Your task to perform on an android device: toggle notification dots Image 0: 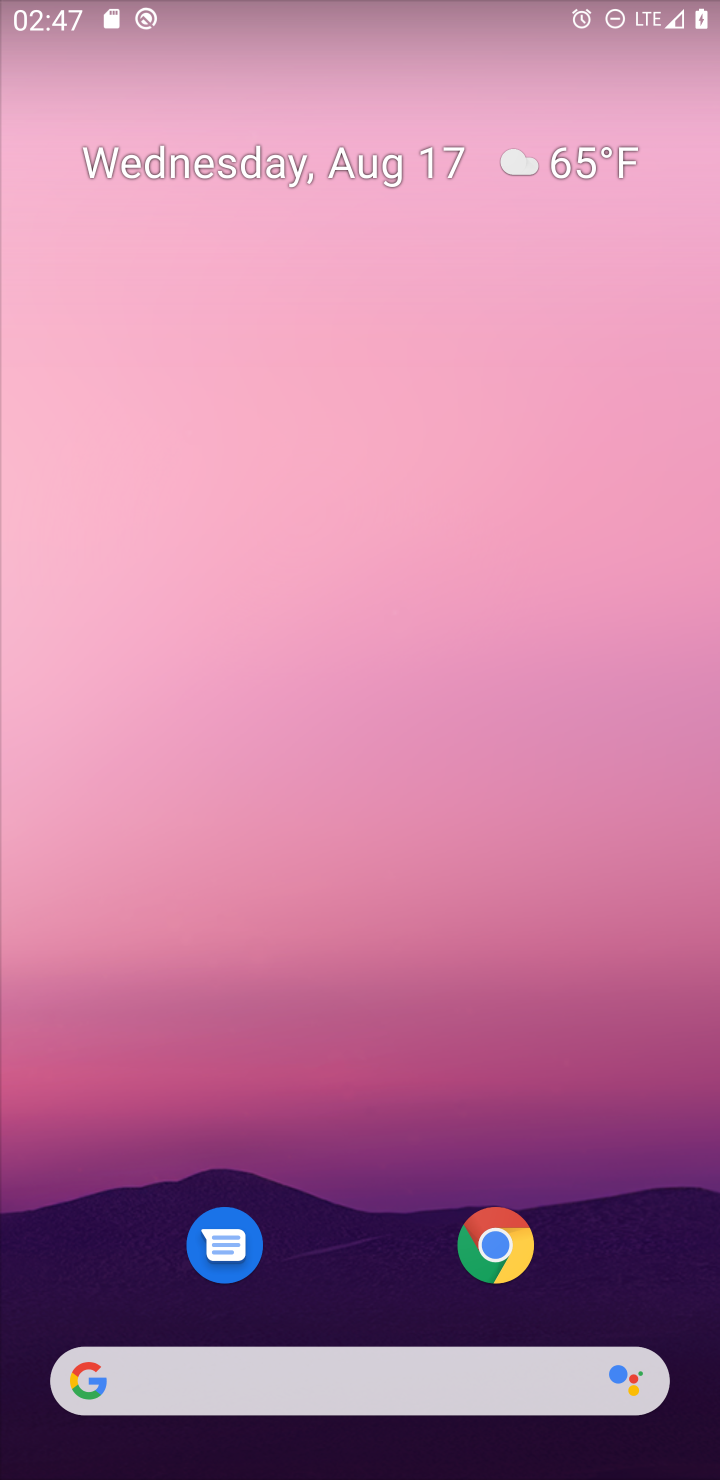
Step 0: drag from (301, 732) to (242, 106)
Your task to perform on an android device: toggle notification dots Image 1: 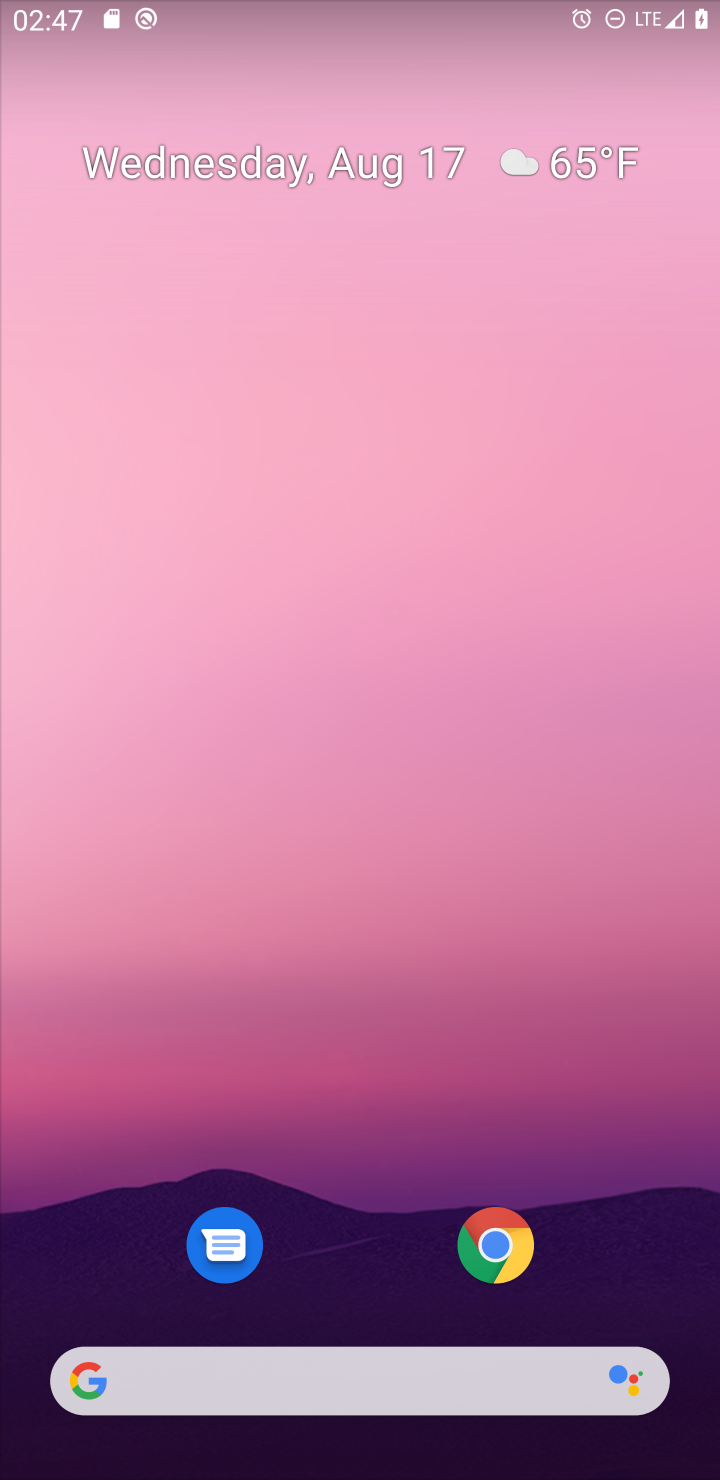
Step 1: drag from (407, 661) to (402, 81)
Your task to perform on an android device: toggle notification dots Image 2: 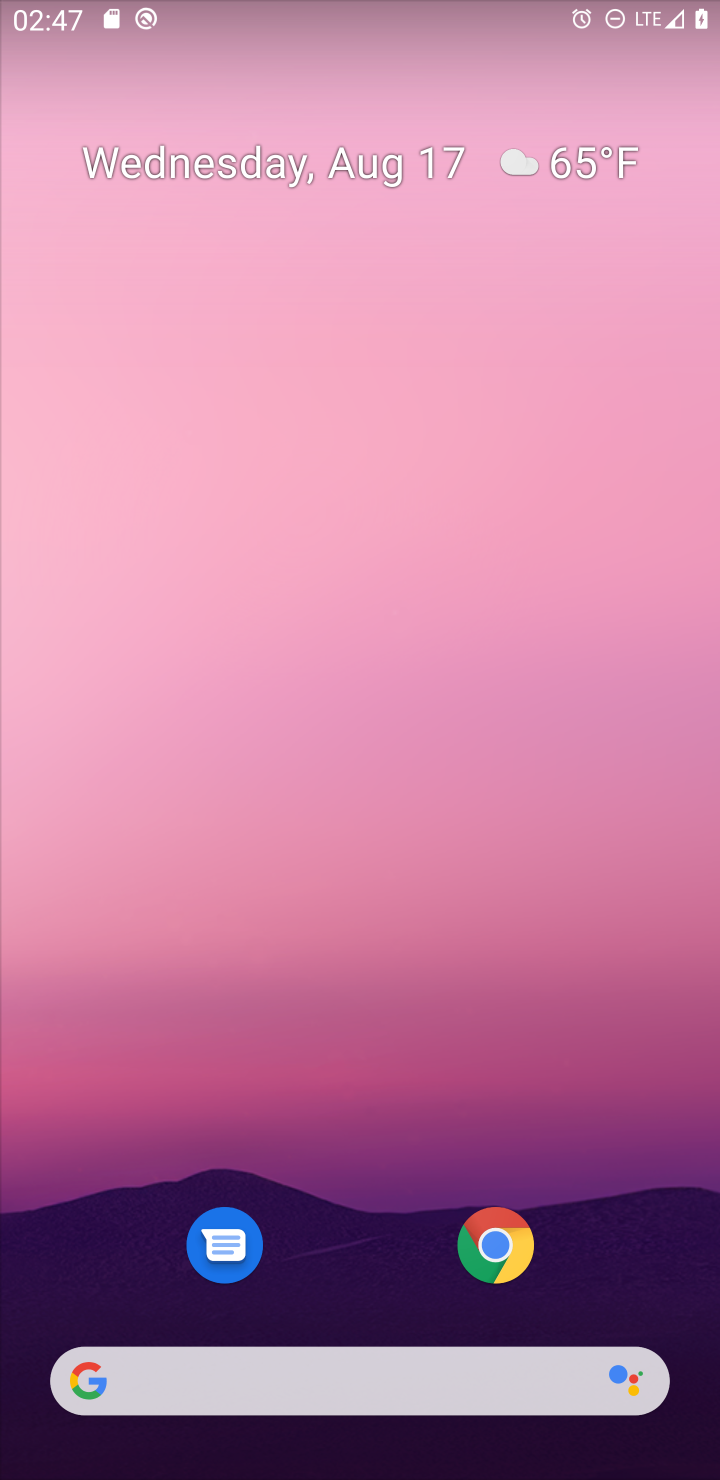
Step 2: drag from (376, 1268) to (364, 84)
Your task to perform on an android device: toggle notification dots Image 3: 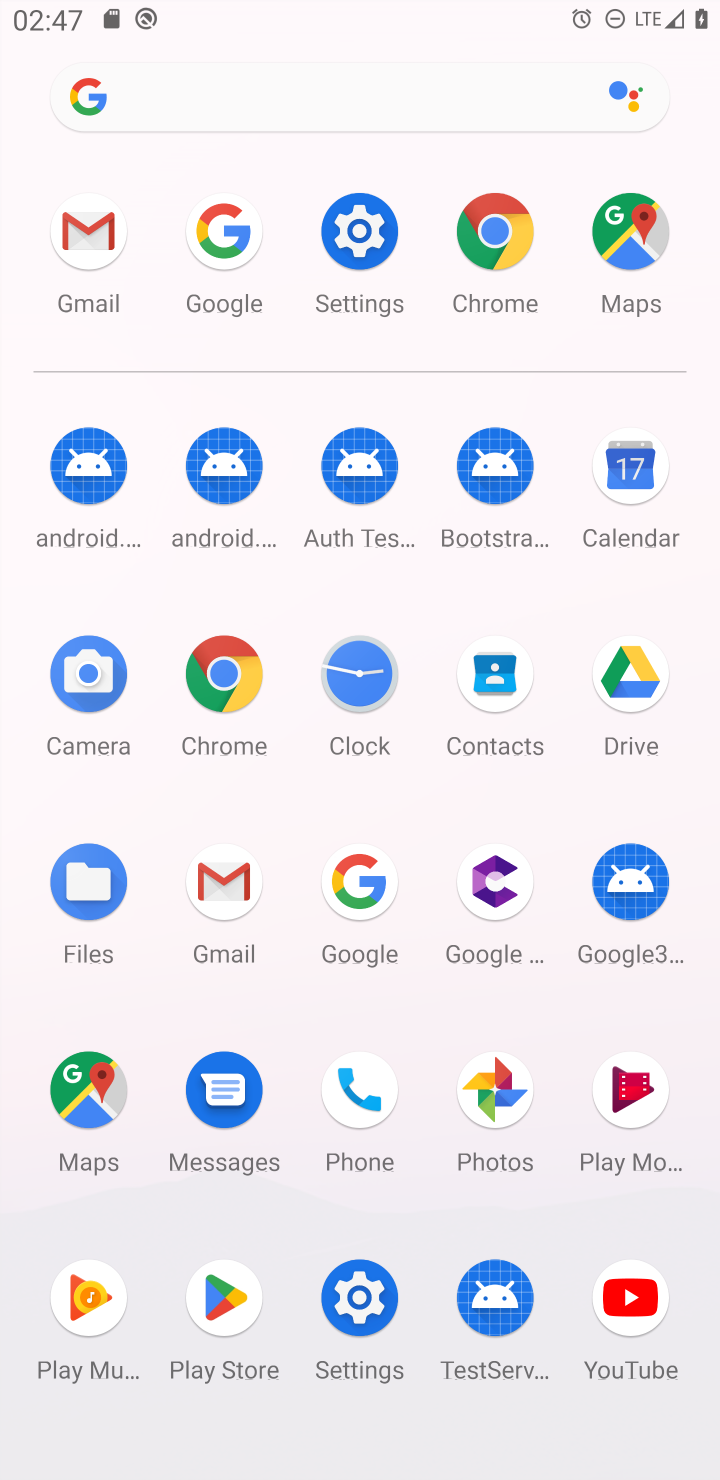
Step 3: click (371, 1290)
Your task to perform on an android device: toggle notification dots Image 4: 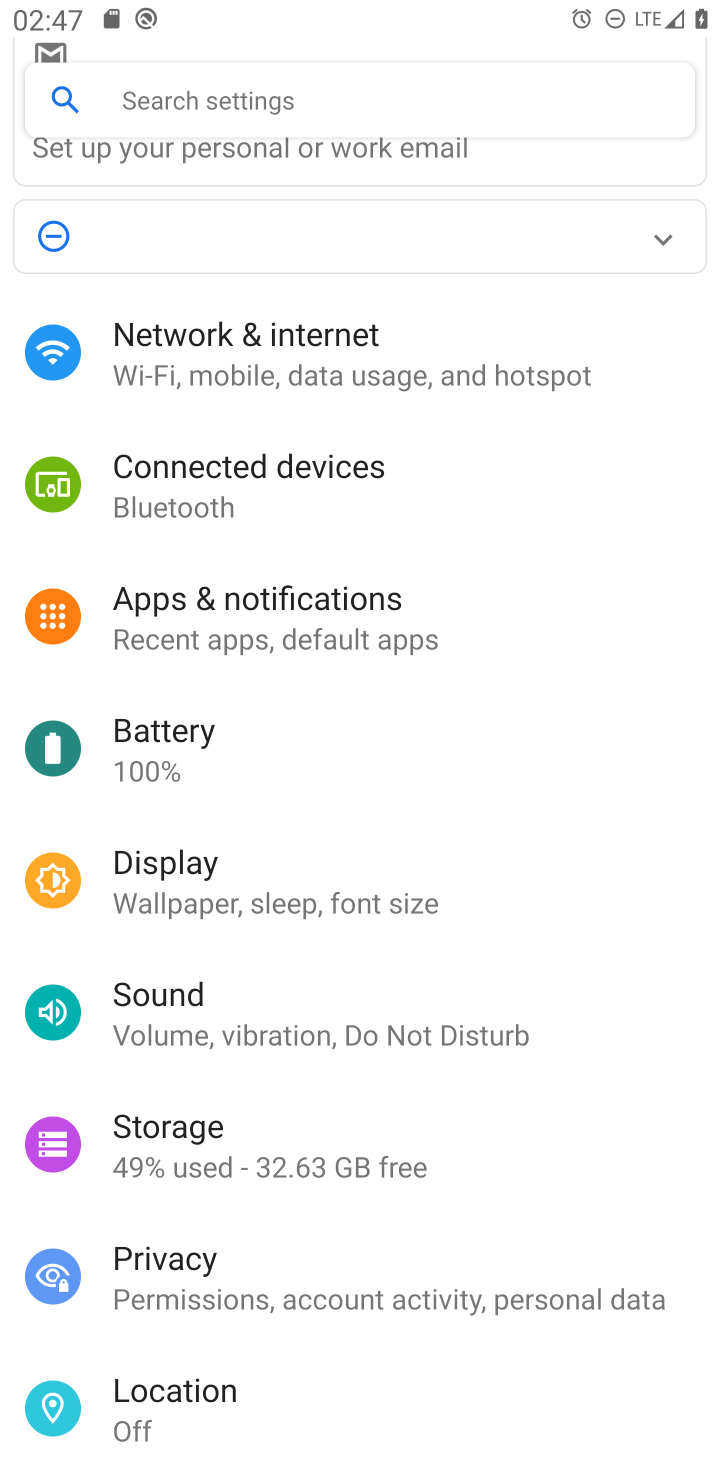
Step 4: click (215, 617)
Your task to perform on an android device: toggle notification dots Image 5: 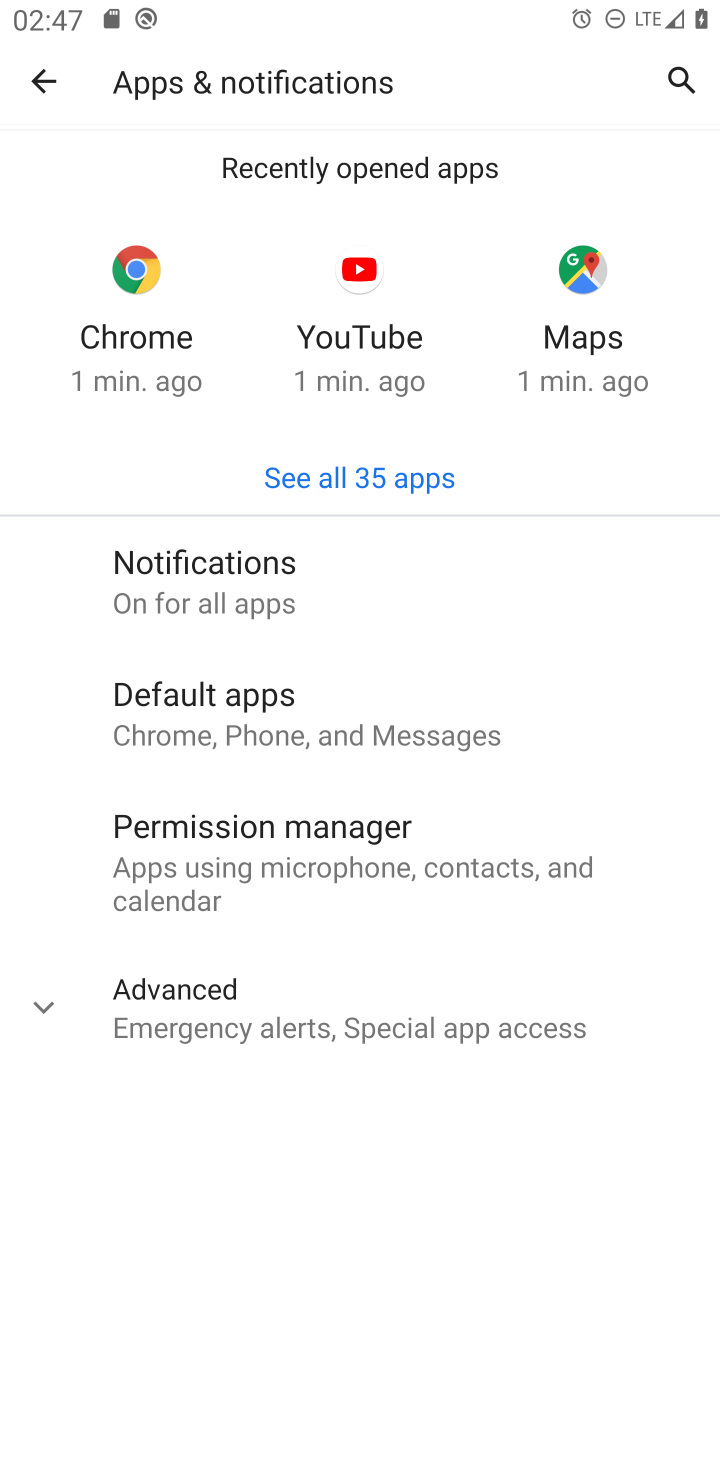
Step 5: click (199, 590)
Your task to perform on an android device: toggle notification dots Image 6: 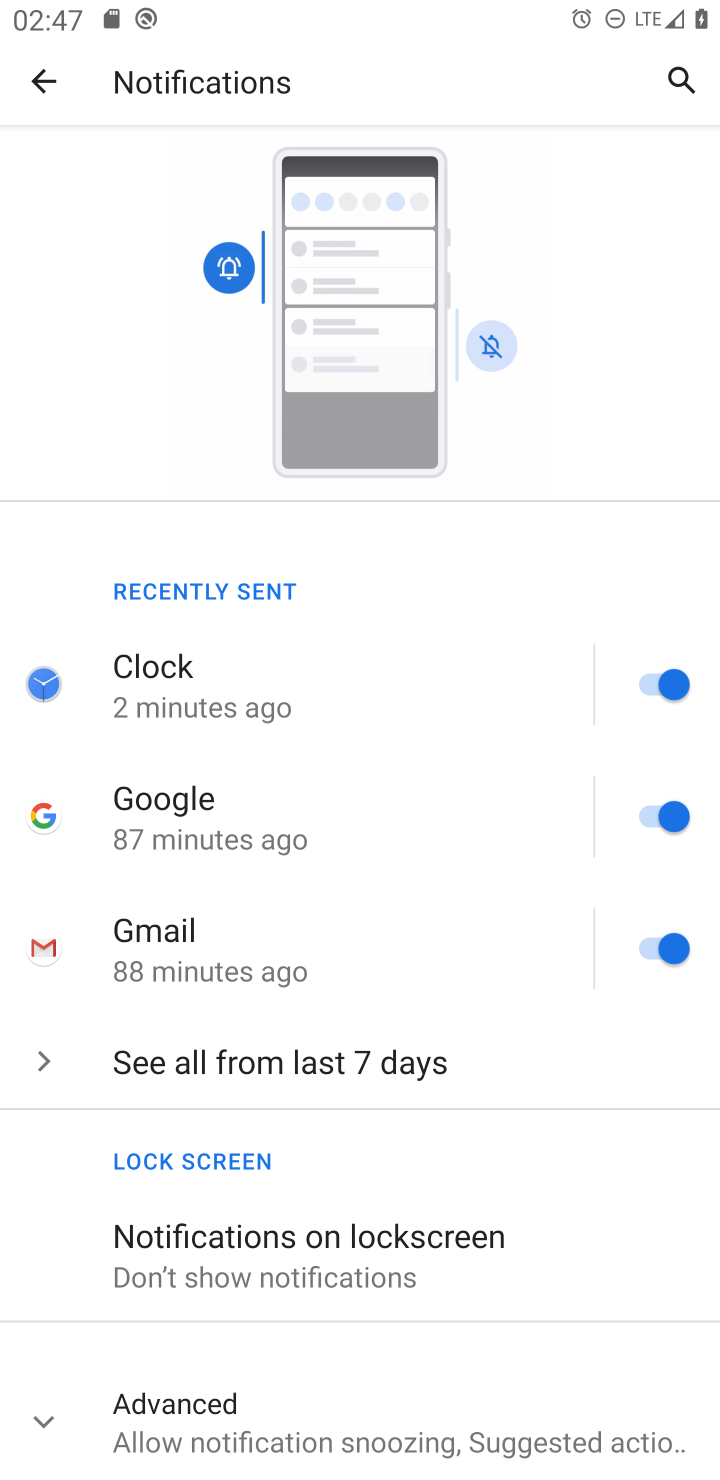
Step 6: drag from (266, 1152) to (270, 494)
Your task to perform on an android device: toggle notification dots Image 7: 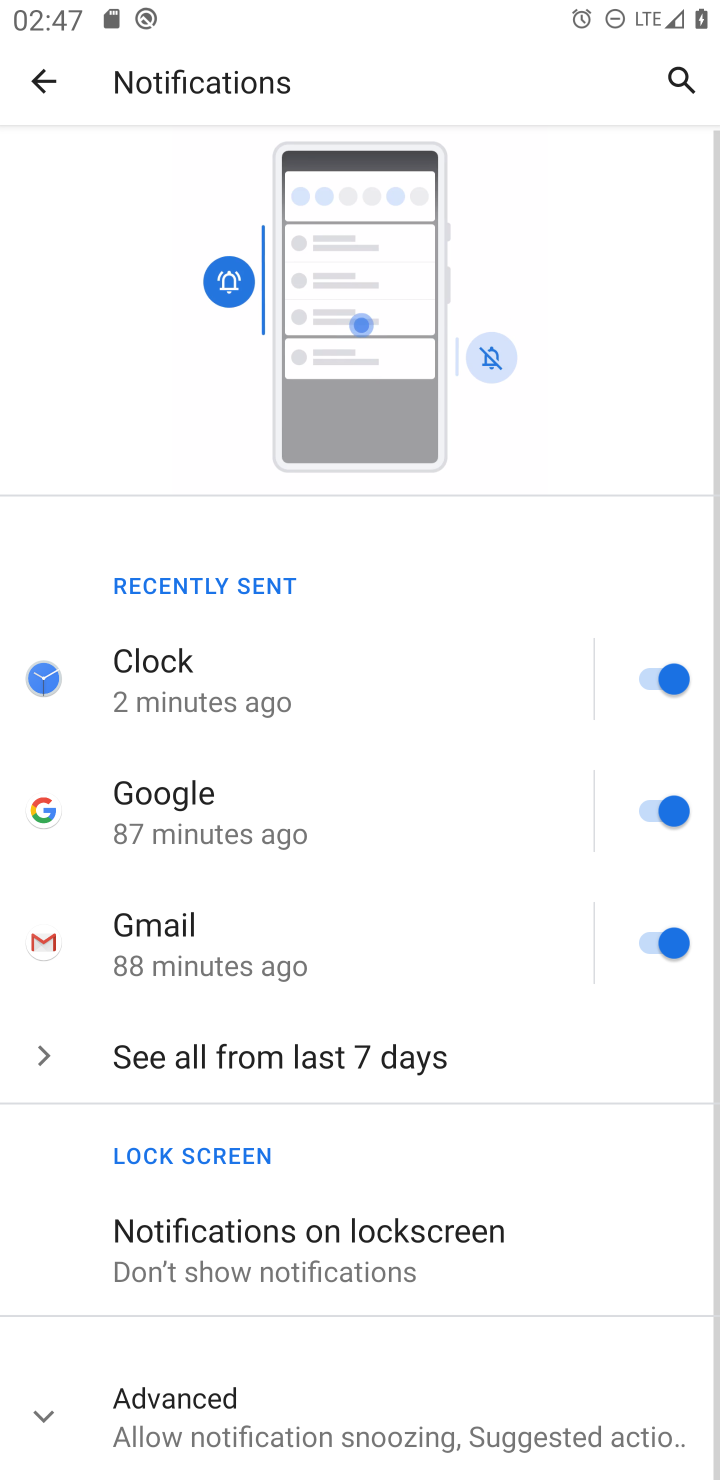
Step 7: click (136, 1429)
Your task to perform on an android device: toggle notification dots Image 8: 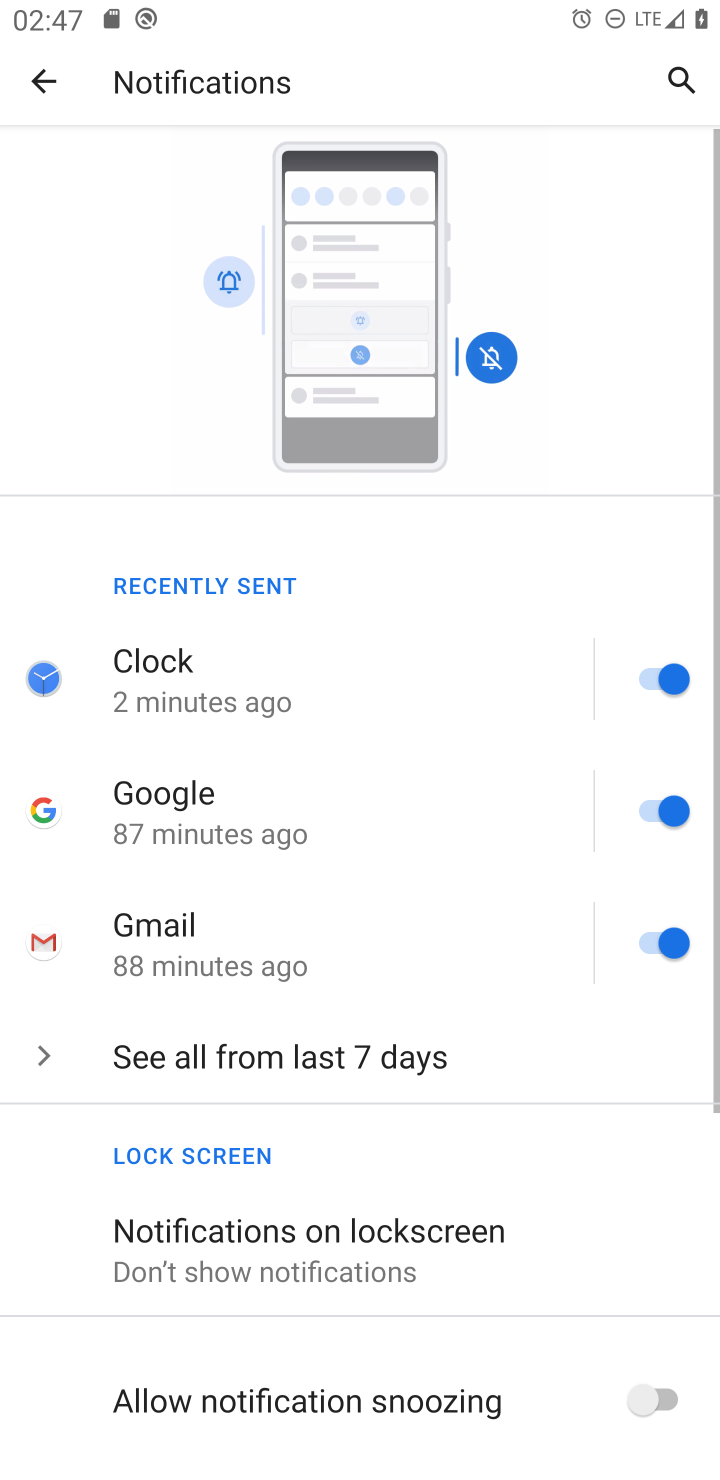
Step 8: task complete